Your task to perform on an android device: clear history in the chrome app Image 0: 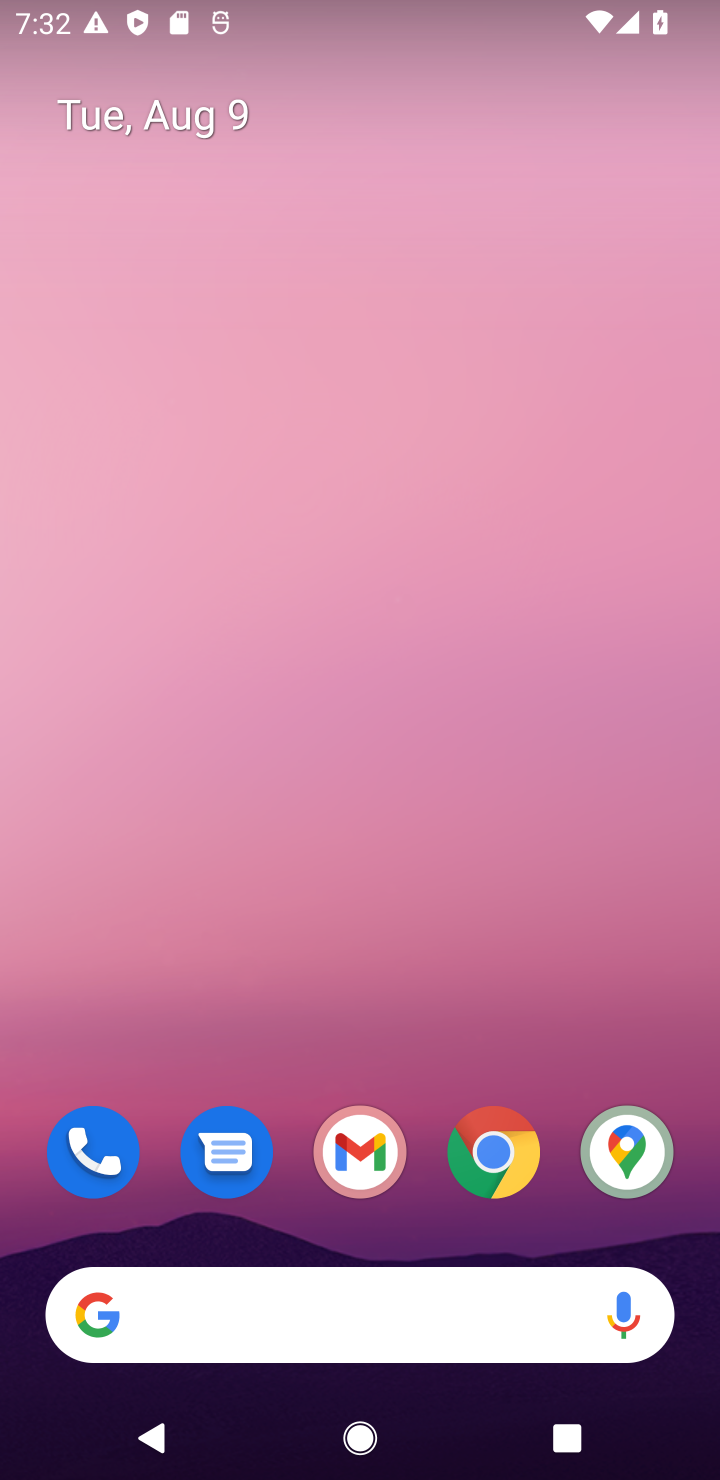
Step 0: click (502, 1166)
Your task to perform on an android device: clear history in the chrome app Image 1: 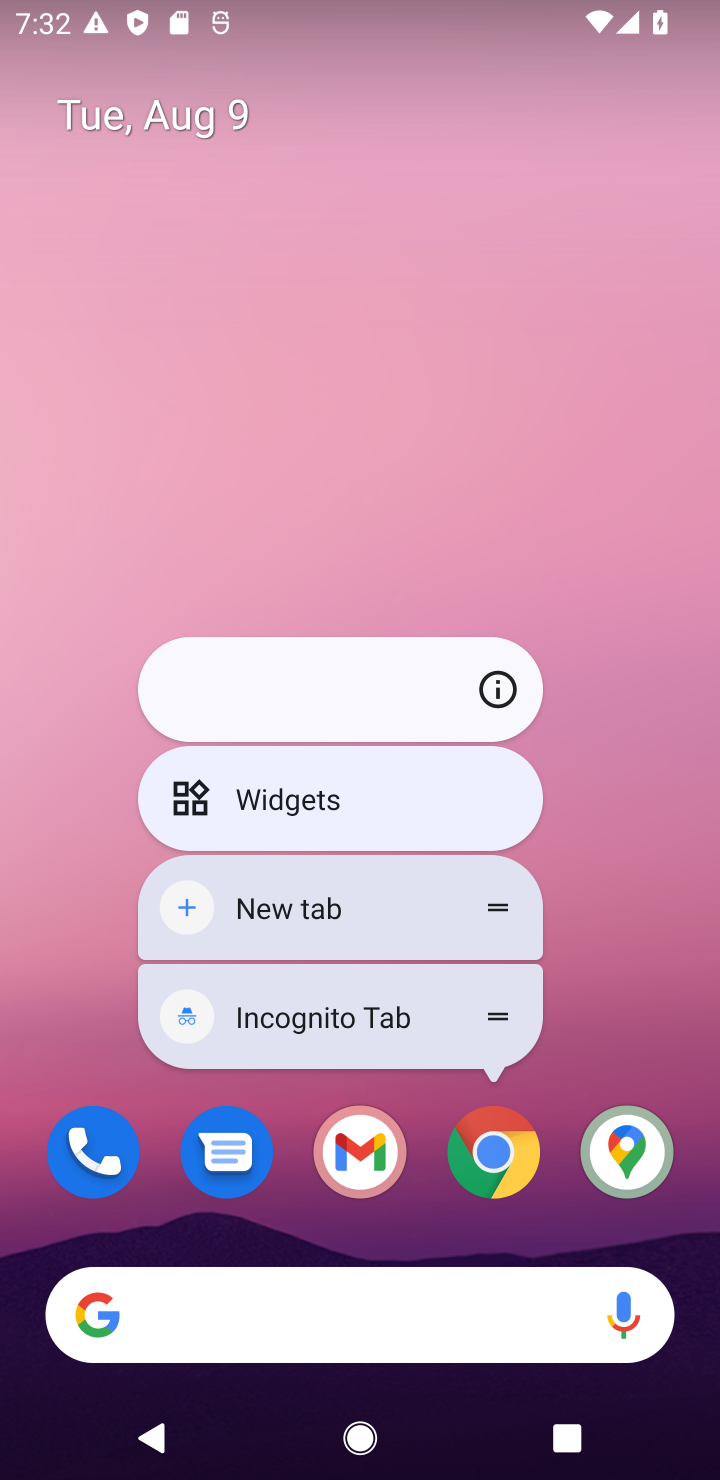
Step 1: click (504, 1158)
Your task to perform on an android device: clear history in the chrome app Image 2: 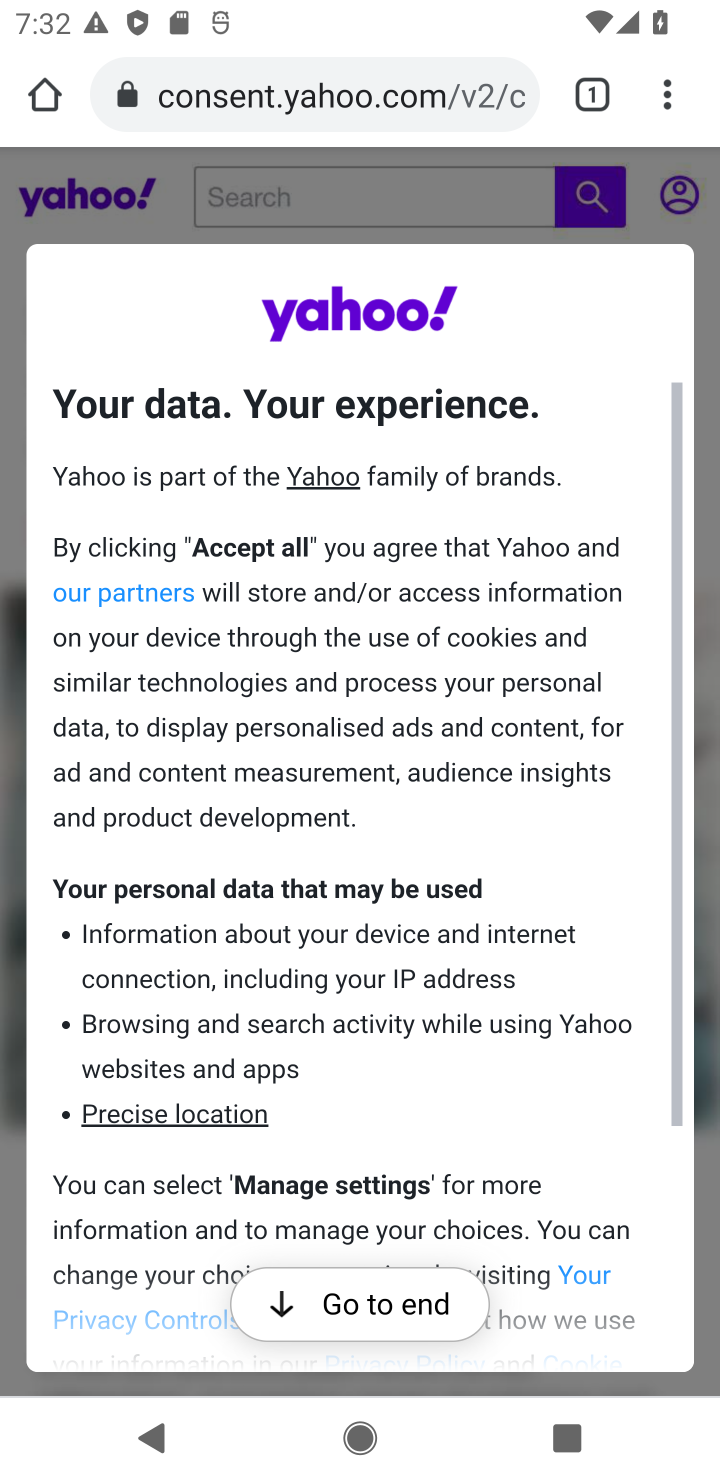
Step 2: click (688, 101)
Your task to perform on an android device: clear history in the chrome app Image 3: 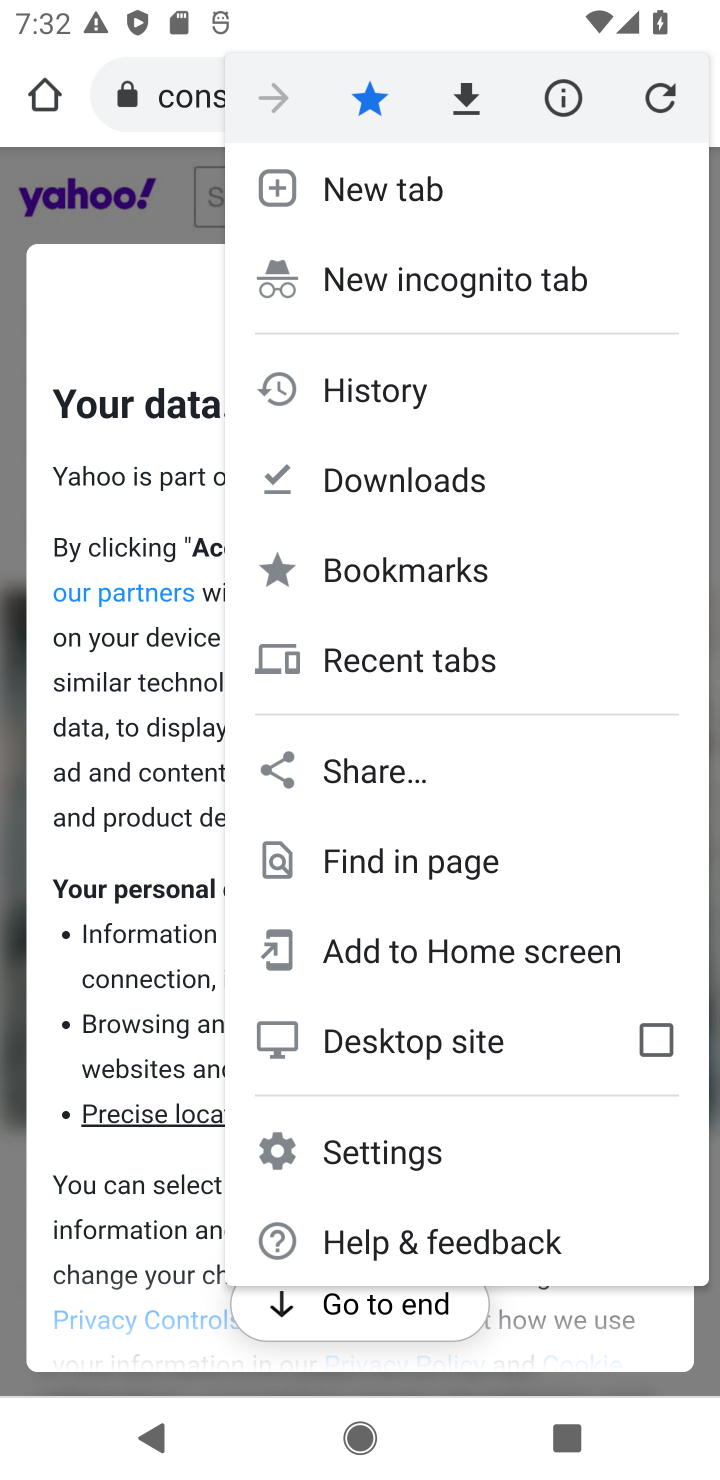
Step 3: click (479, 389)
Your task to perform on an android device: clear history in the chrome app Image 4: 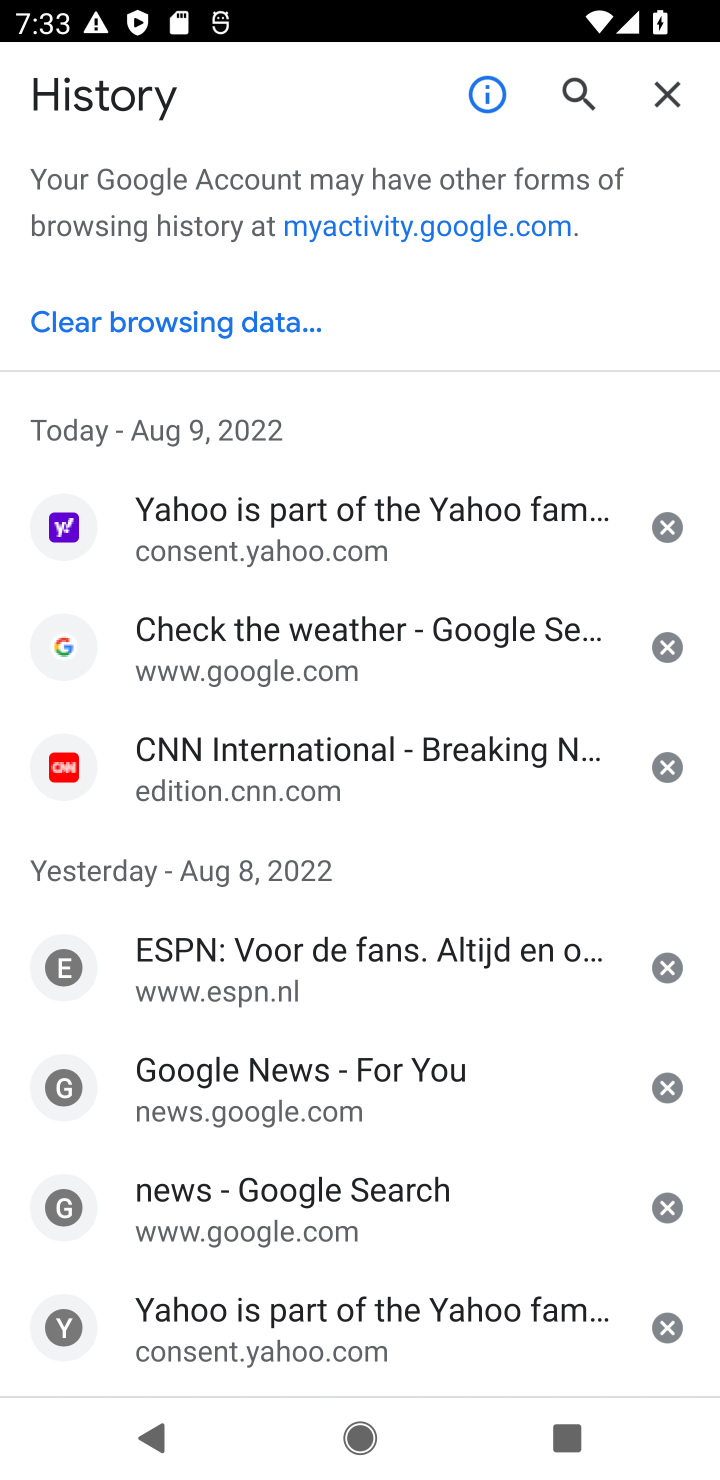
Step 4: click (273, 338)
Your task to perform on an android device: clear history in the chrome app Image 5: 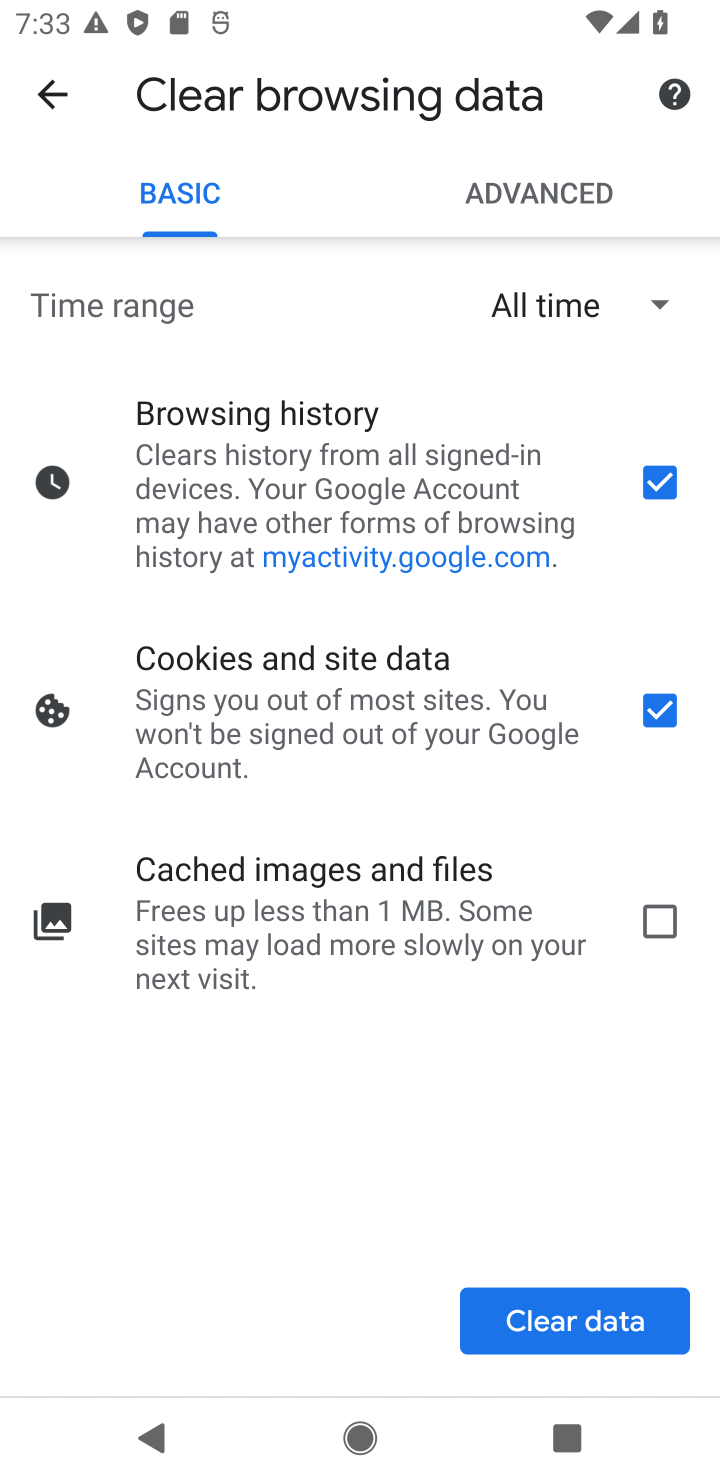
Step 5: click (667, 693)
Your task to perform on an android device: clear history in the chrome app Image 6: 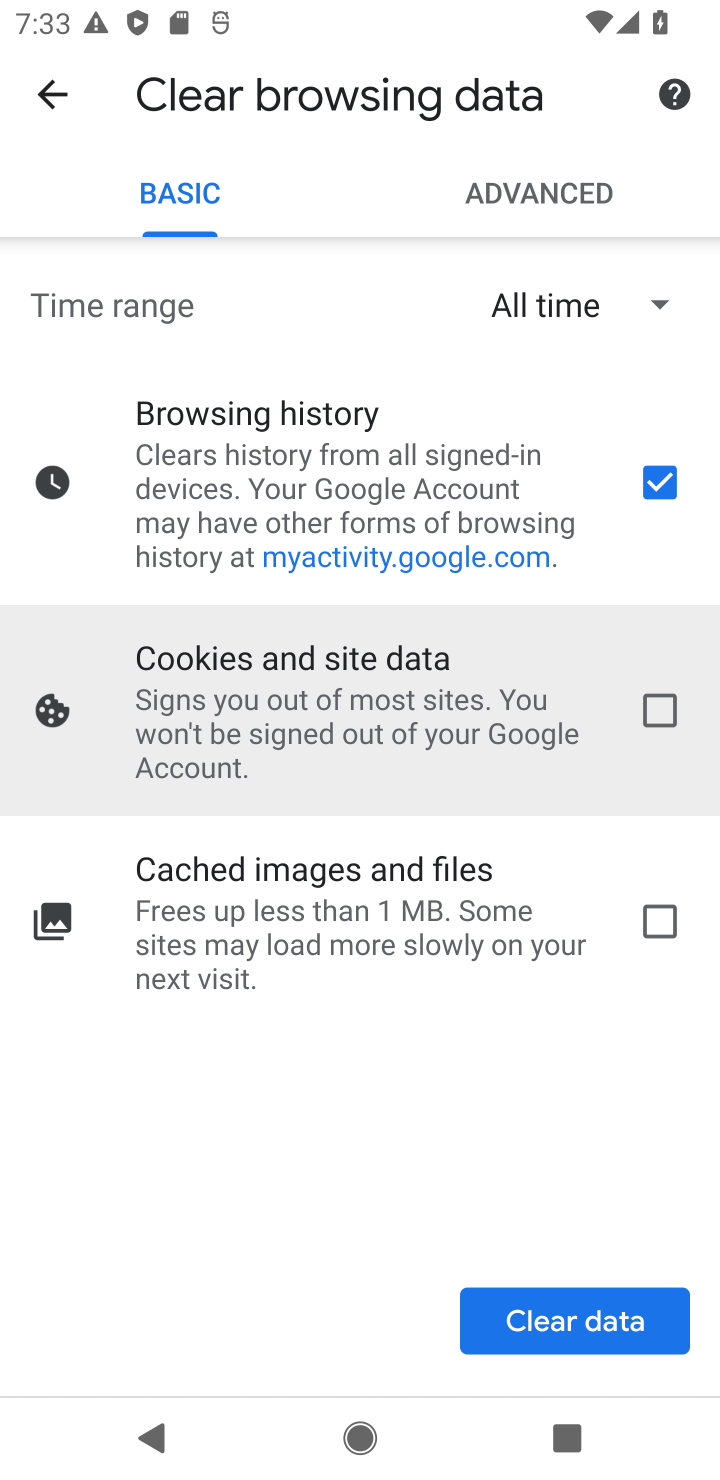
Step 6: click (523, 1333)
Your task to perform on an android device: clear history in the chrome app Image 7: 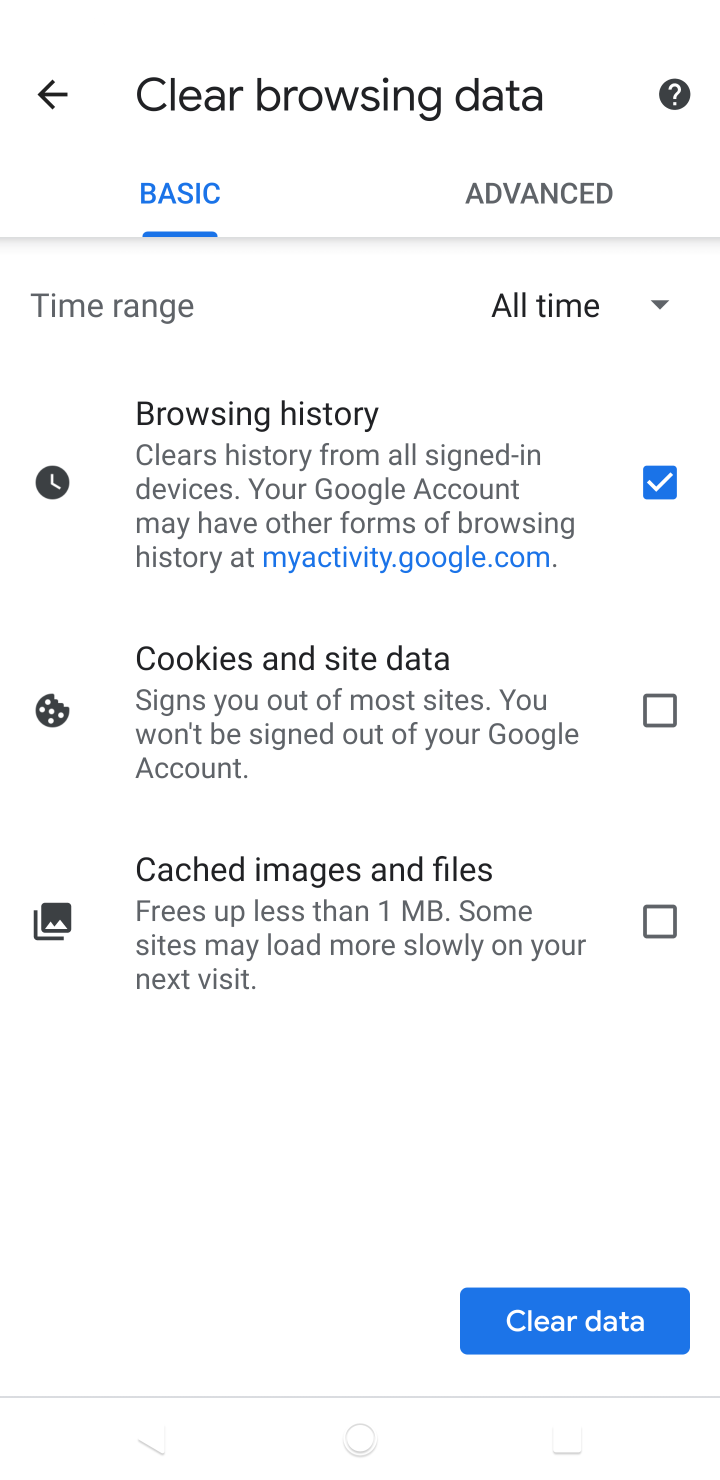
Step 7: task complete